Your task to perform on an android device: Show me the alarms in the clock app Image 0: 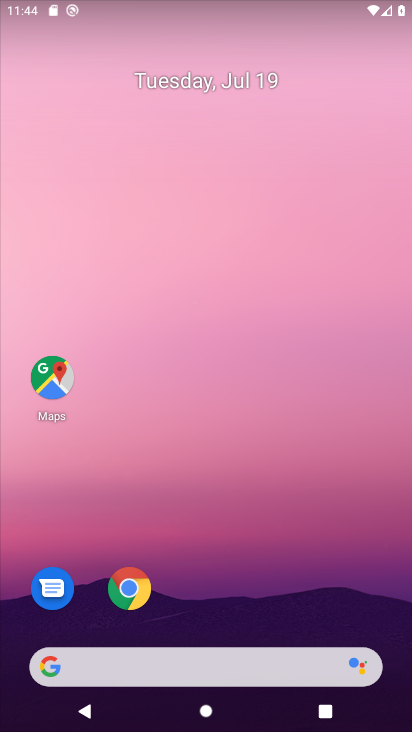
Step 0: drag from (252, 587) to (207, 0)
Your task to perform on an android device: Show me the alarms in the clock app Image 1: 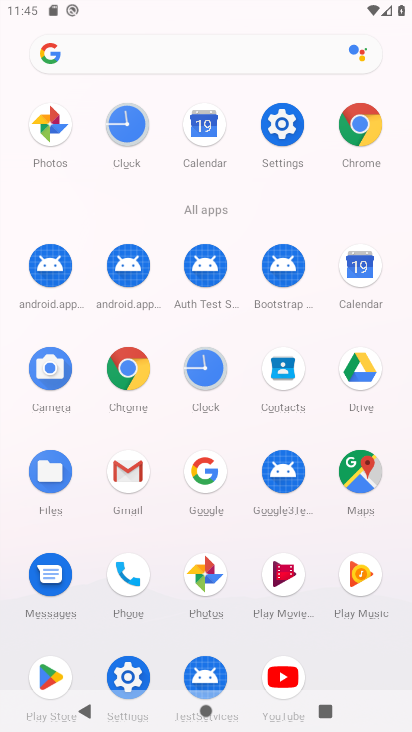
Step 1: click (215, 373)
Your task to perform on an android device: Show me the alarms in the clock app Image 2: 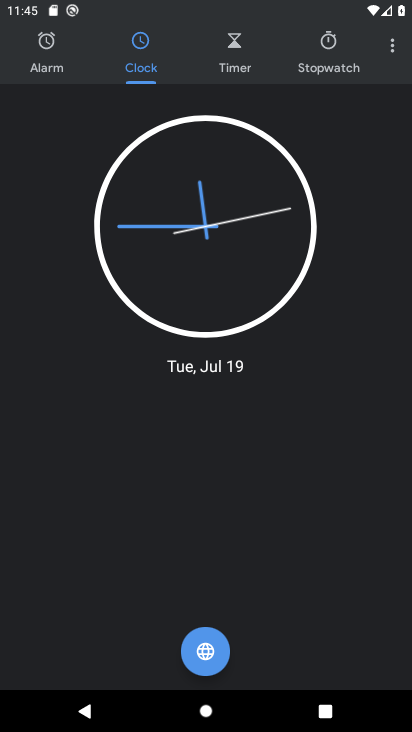
Step 2: click (54, 46)
Your task to perform on an android device: Show me the alarms in the clock app Image 3: 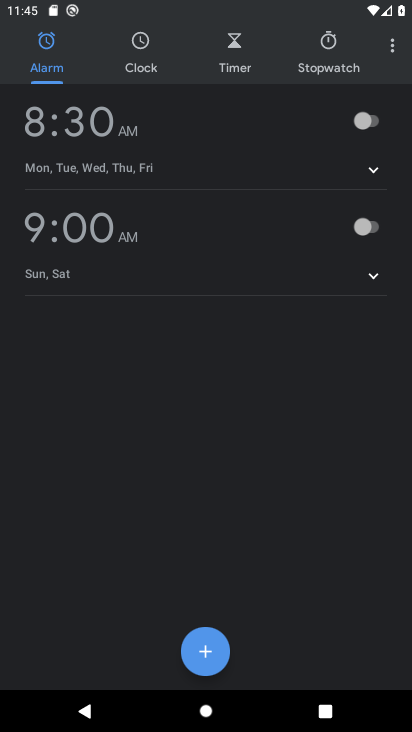
Step 3: task complete